Your task to perform on an android device: Do I have any events today? Image 0: 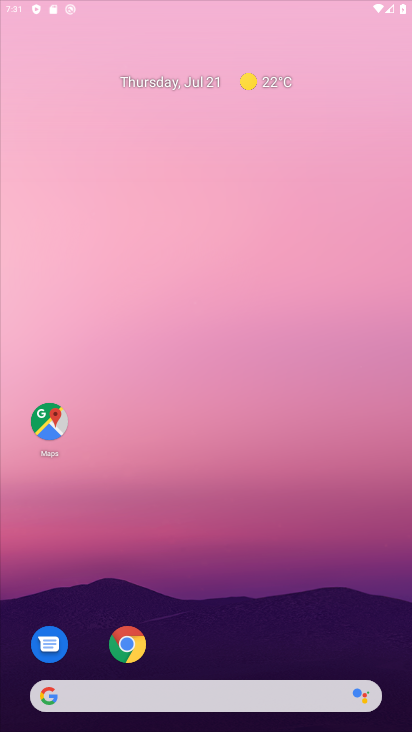
Step 0: press home button
Your task to perform on an android device: Do I have any events today? Image 1: 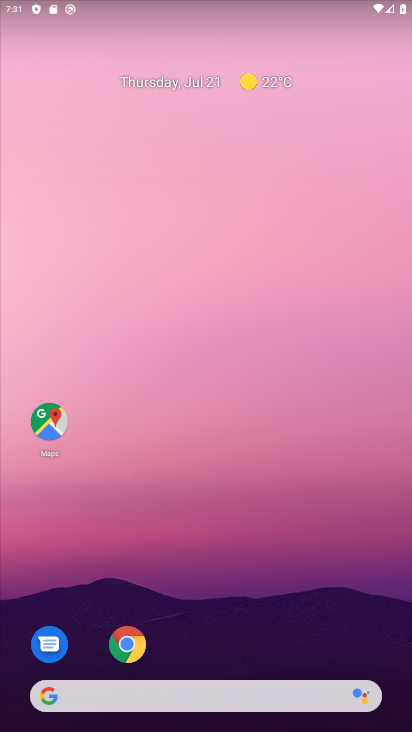
Step 1: drag from (362, 610) to (364, 154)
Your task to perform on an android device: Do I have any events today? Image 2: 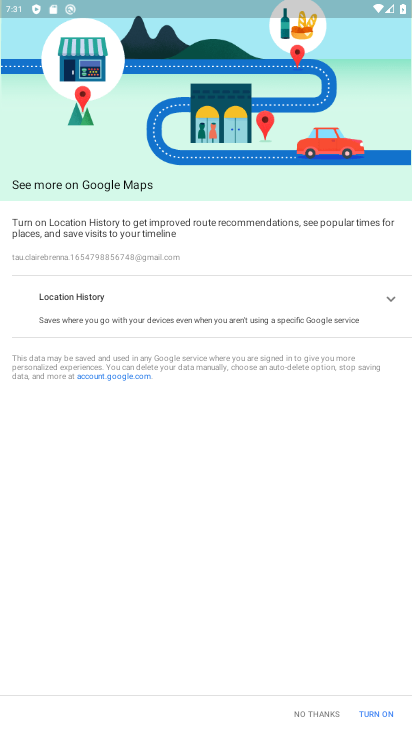
Step 2: press home button
Your task to perform on an android device: Do I have any events today? Image 3: 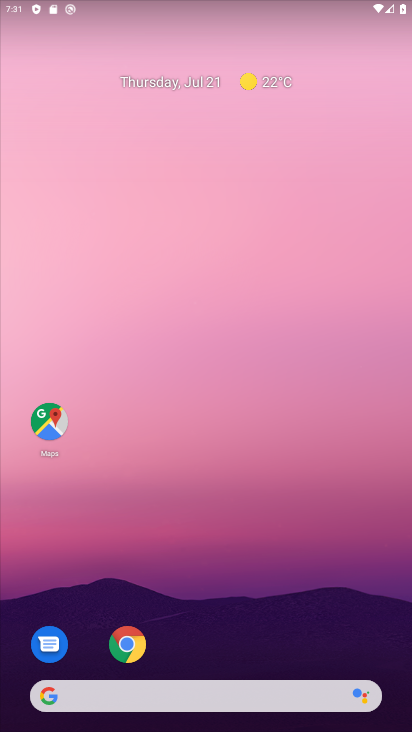
Step 3: drag from (361, 618) to (410, 65)
Your task to perform on an android device: Do I have any events today? Image 4: 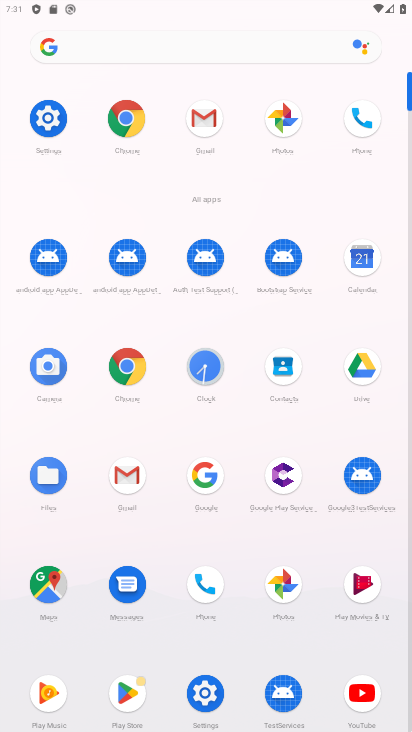
Step 4: click (362, 266)
Your task to perform on an android device: Do I have any events today? Image 5: 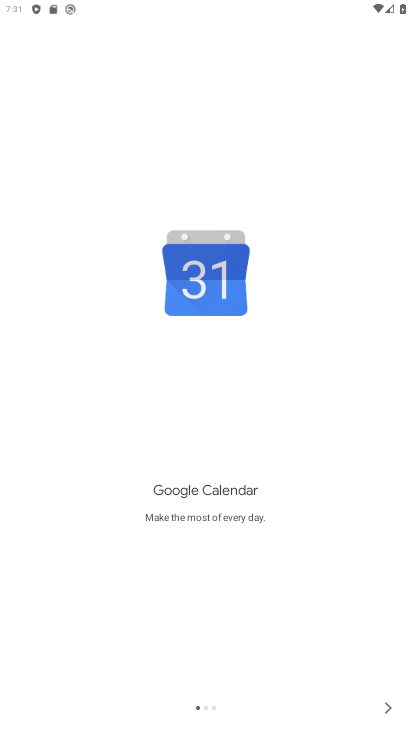
Step 5: click (385, 707)
Your task to perform on an android device: Do I have any events today? Image 6: 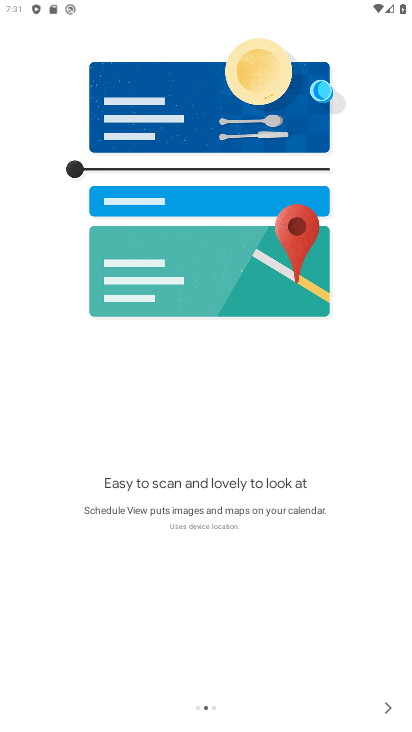
Step 6: click (385, 707)
Your task to perform on an android device: Do I have any events today? Image 7: 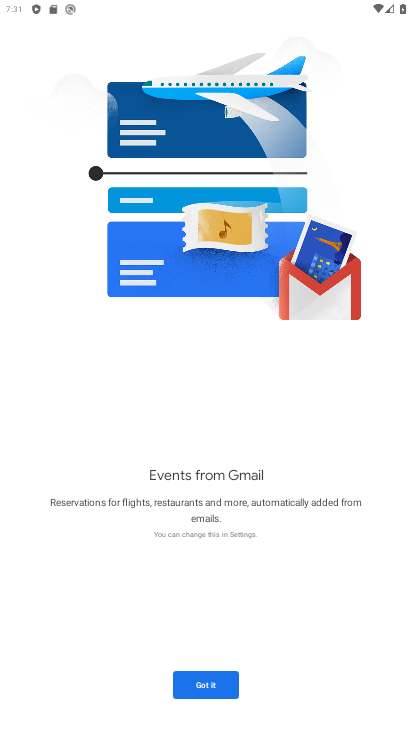
Step 7: click (207, 686)
Your task to perform on an android device: Do I have any events today? Image 8: 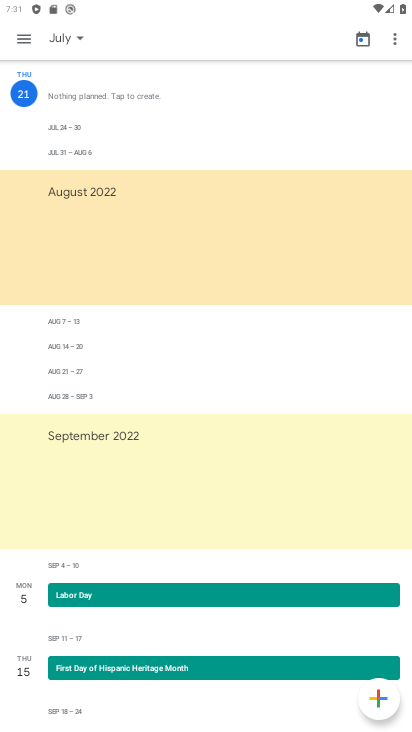
Step 8: click (79, 36)
Your task to perform on an android device: Do I have any events today? Image 9: 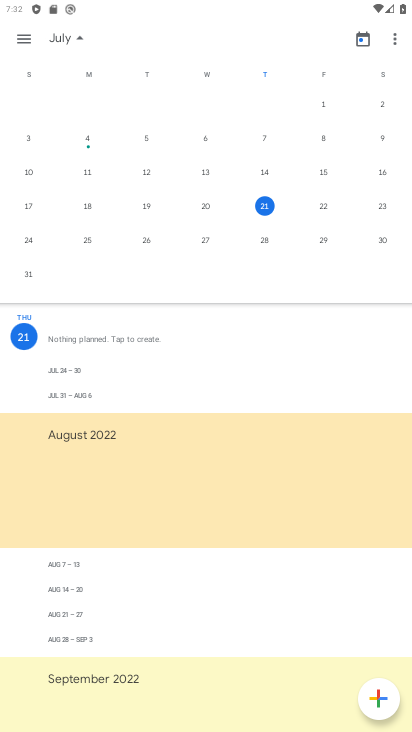
Step 9: click (328, 211)
Your task to perform on an android device: Do I have any events today? Image 10: 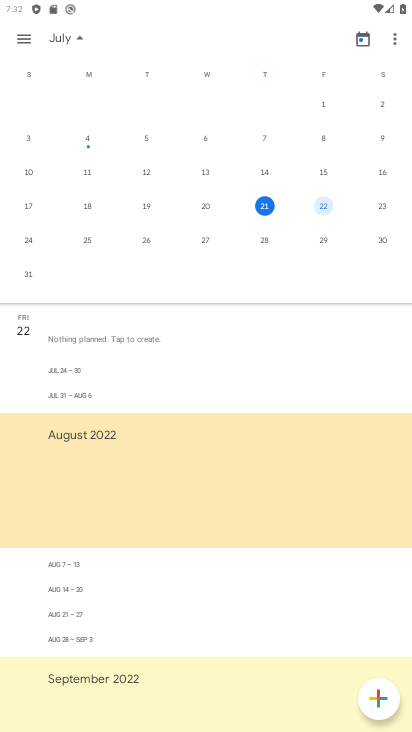
Step 10: task complete